Your task to perform on an android device: Add razer huntsman to the cart on costco, then select checkout. Image 0: 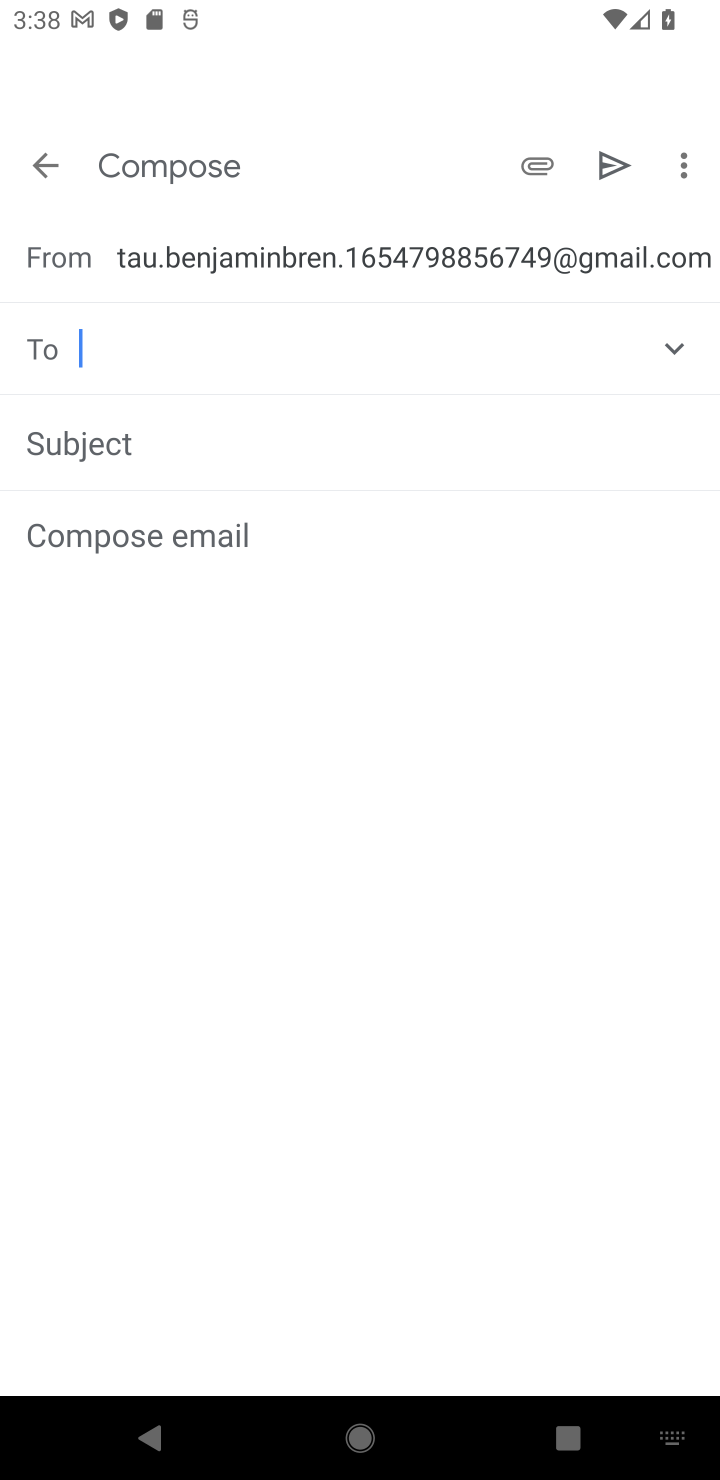
Step 0: press home button
Your task to perform on an android device: Add razer huntsman to the cart on costco, then select checkout. Image 1: 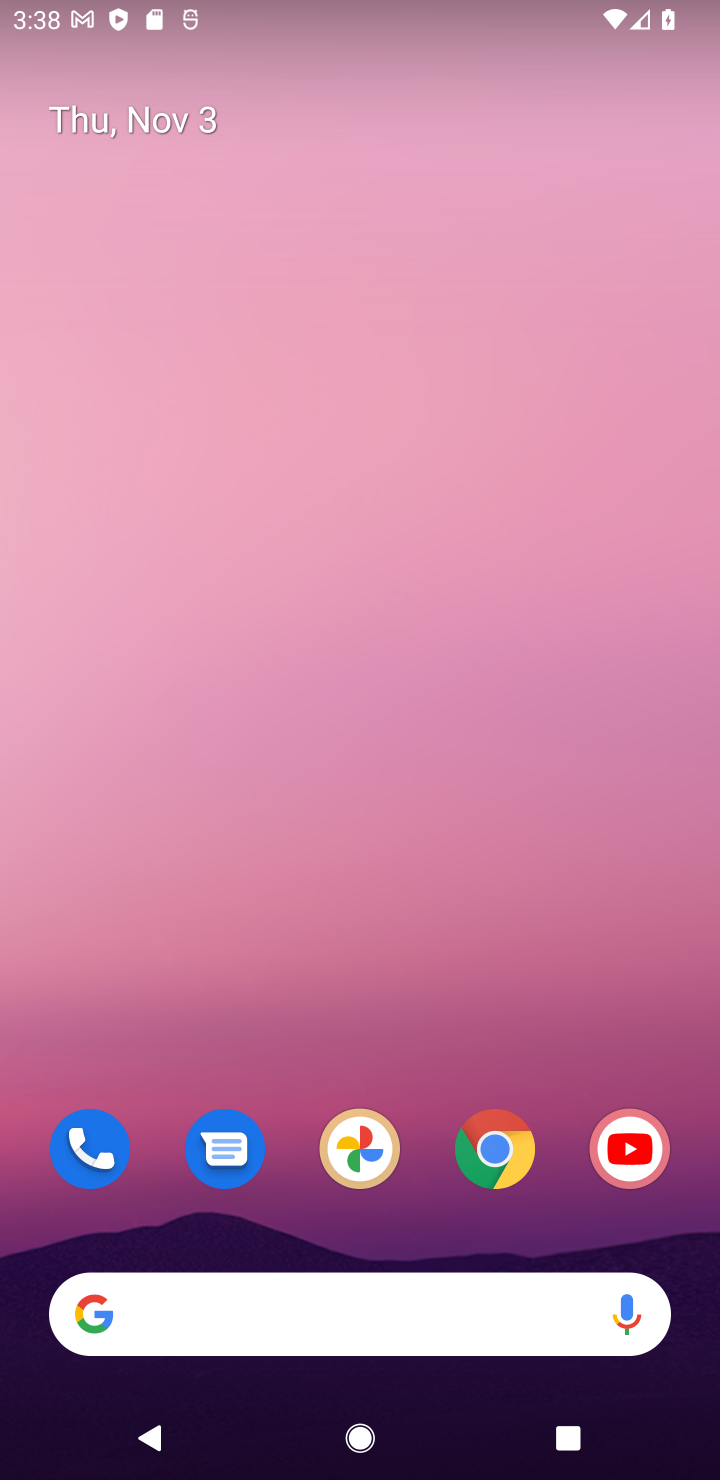
Step 1: click (498, 1137)
Your task to perform on an android device: Add razer huntsman to the cart on costco, then select checkout. Image 2: 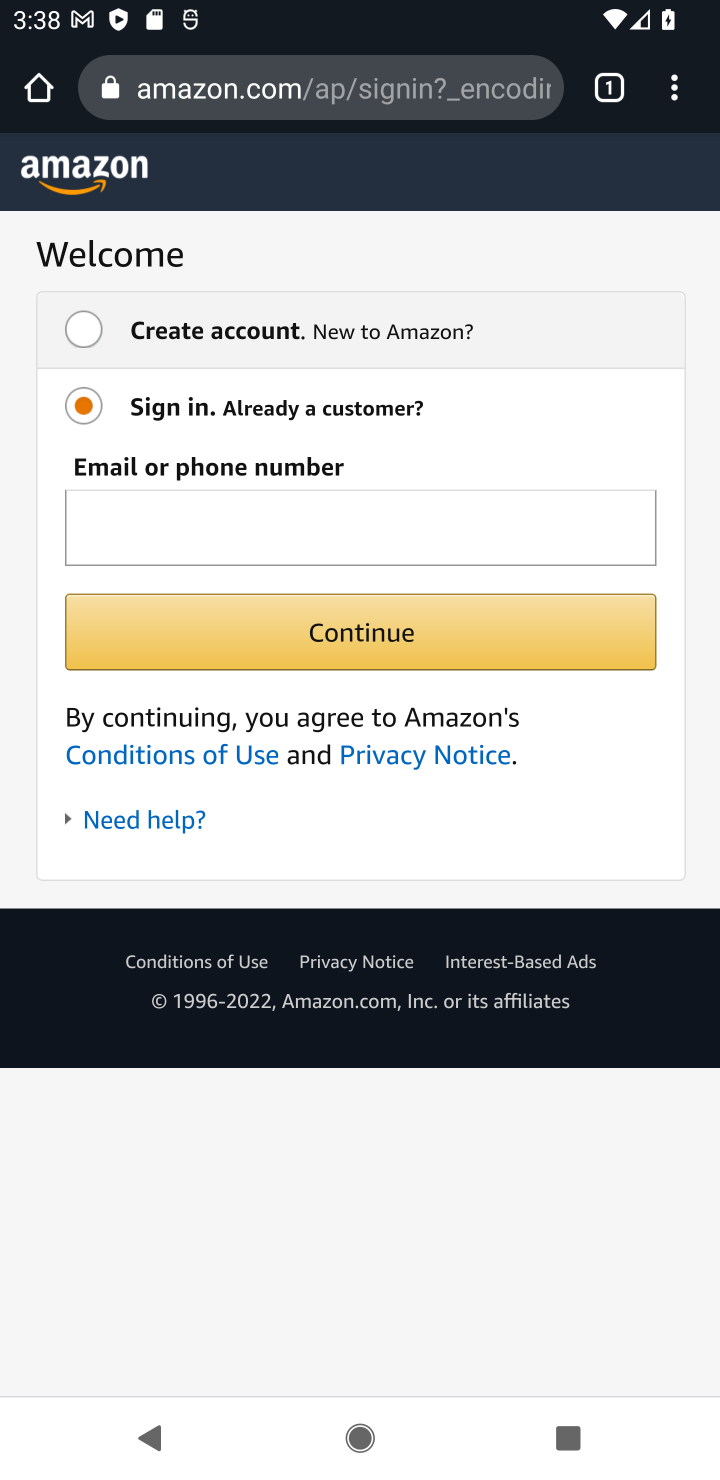
Step 2: click (248, 87)
Your task to perform on an android device: Add razer huntsman to the cart on costco, then select checkout. Image 3: 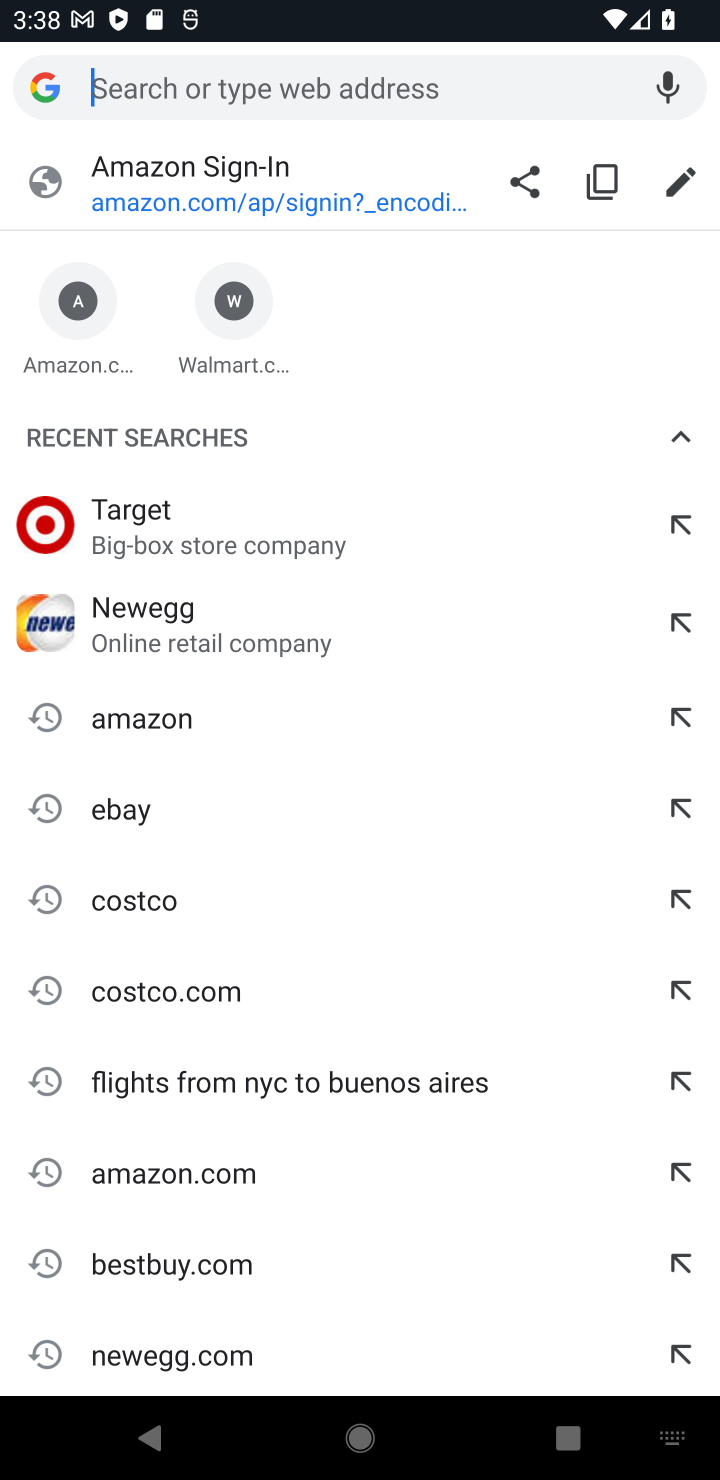
Step 3: type "costco"
Your task to perform on an android device: Add razer huntsman to the cart on costco, then select checkout. Image 4: 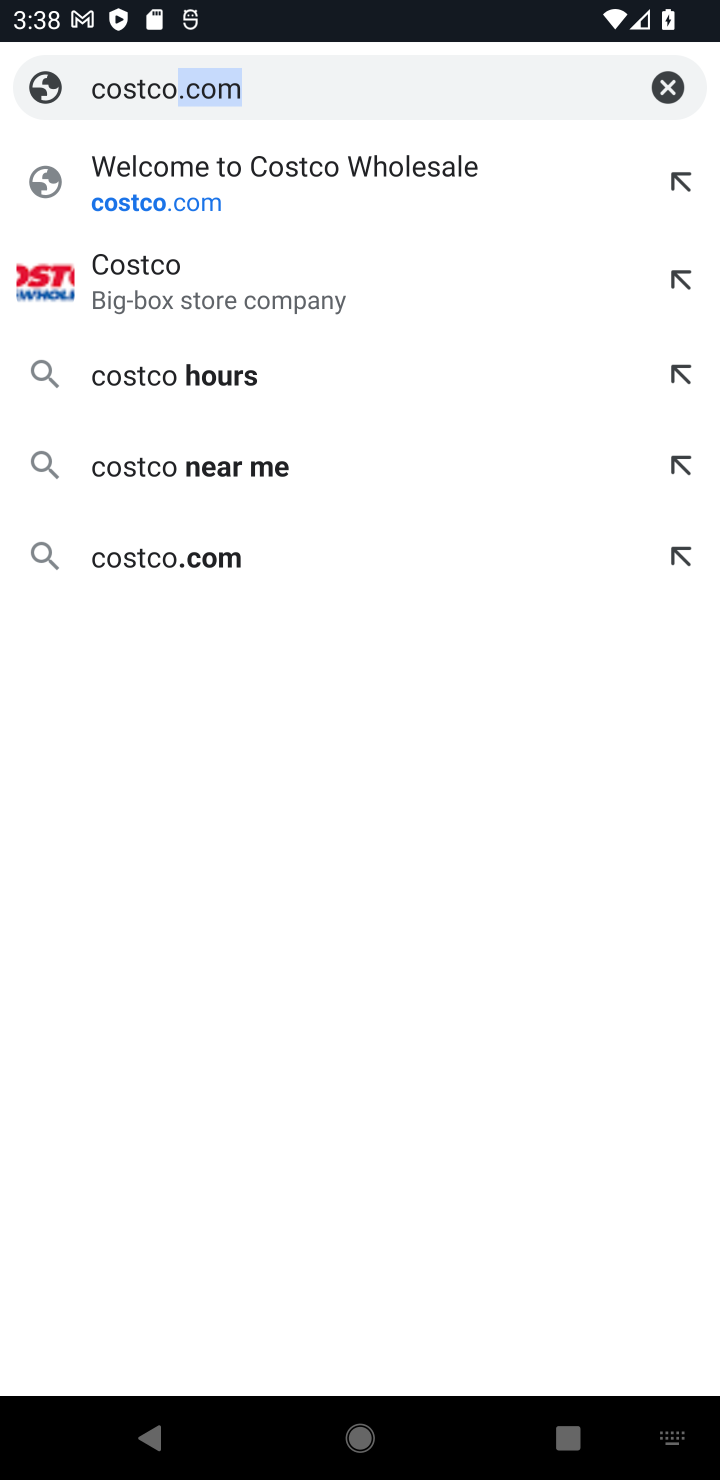
Step 4: click (306, 278)
Your task to perform on an android device: Add razer huntsman to the cart on costco, then select checkout. Image 5: 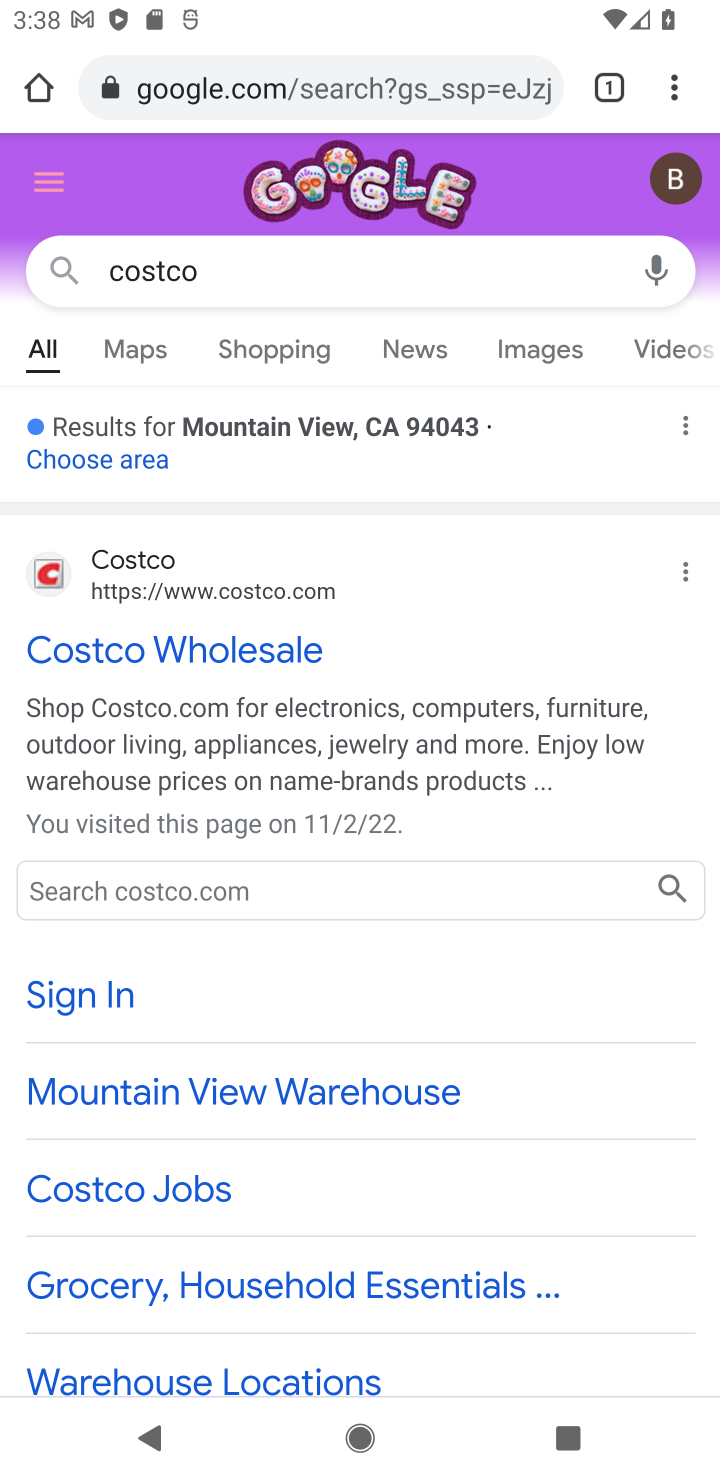
Step 5: click (267, 647)
Your task to perform on an android device: Add razer huntsman to the cart on costco, then select checkout. Image 6: 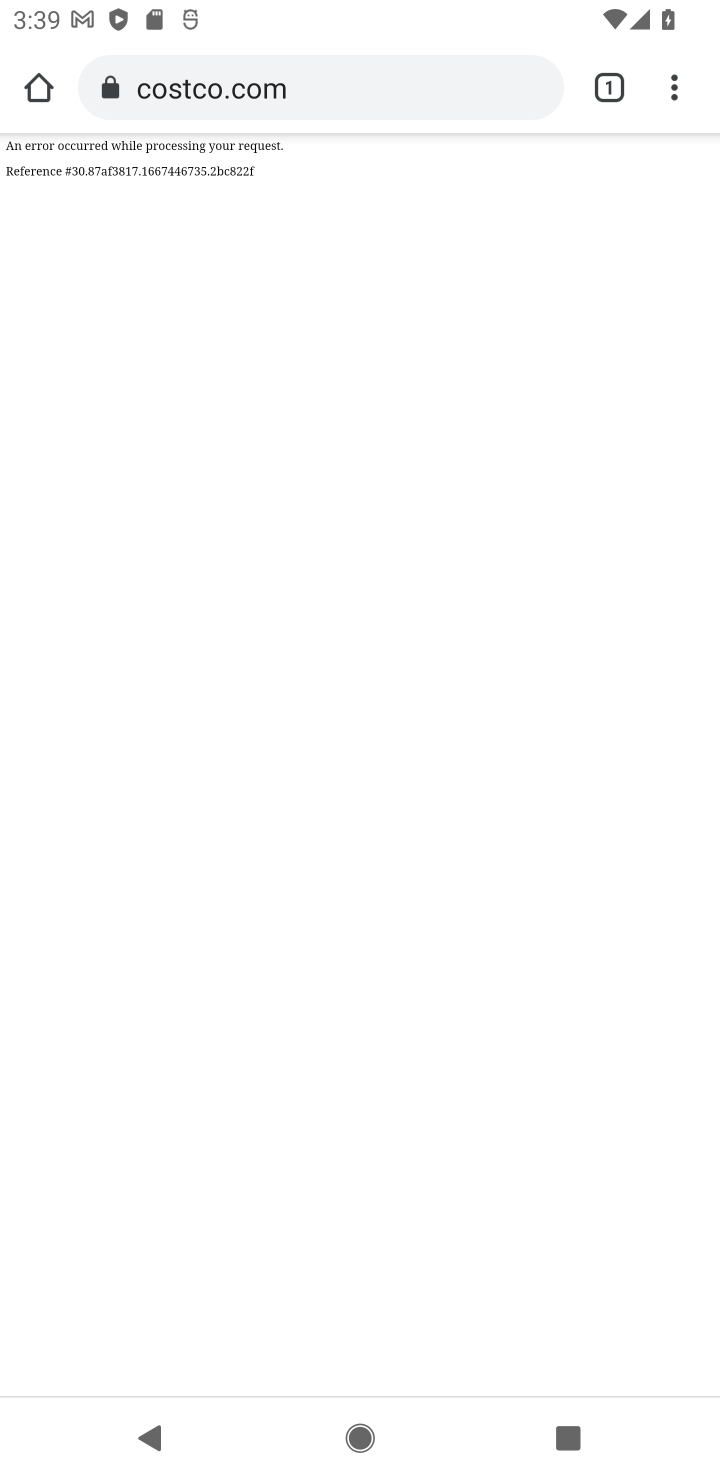
Step 6: press back button
Your task to perform on an android device: Add razer huntsman to the cart on costco, then select checkout. Image 7: 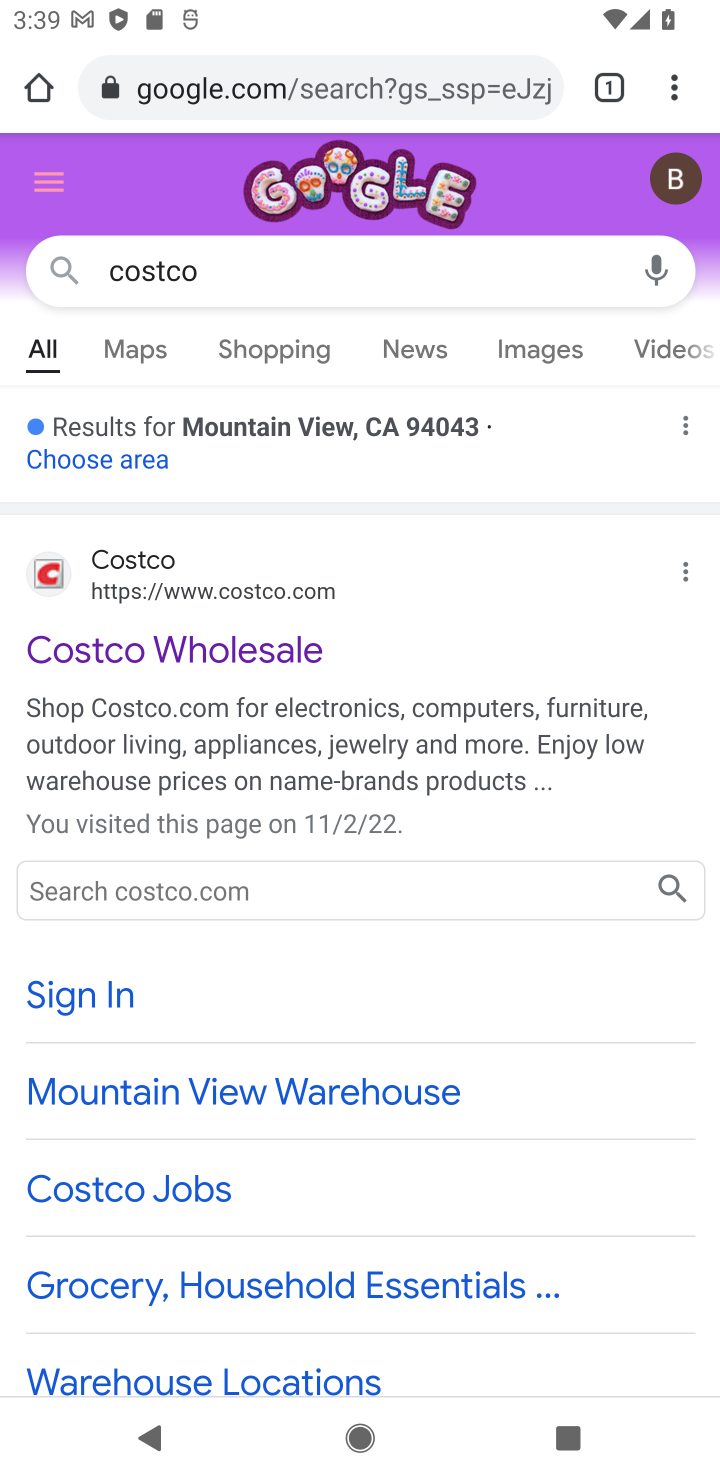
Step 7: drag from (245, 1236) to (261, 500)
Your task to perform on an android device: Add razer huntsman to the cart on costco, then select checkout. Image 8: 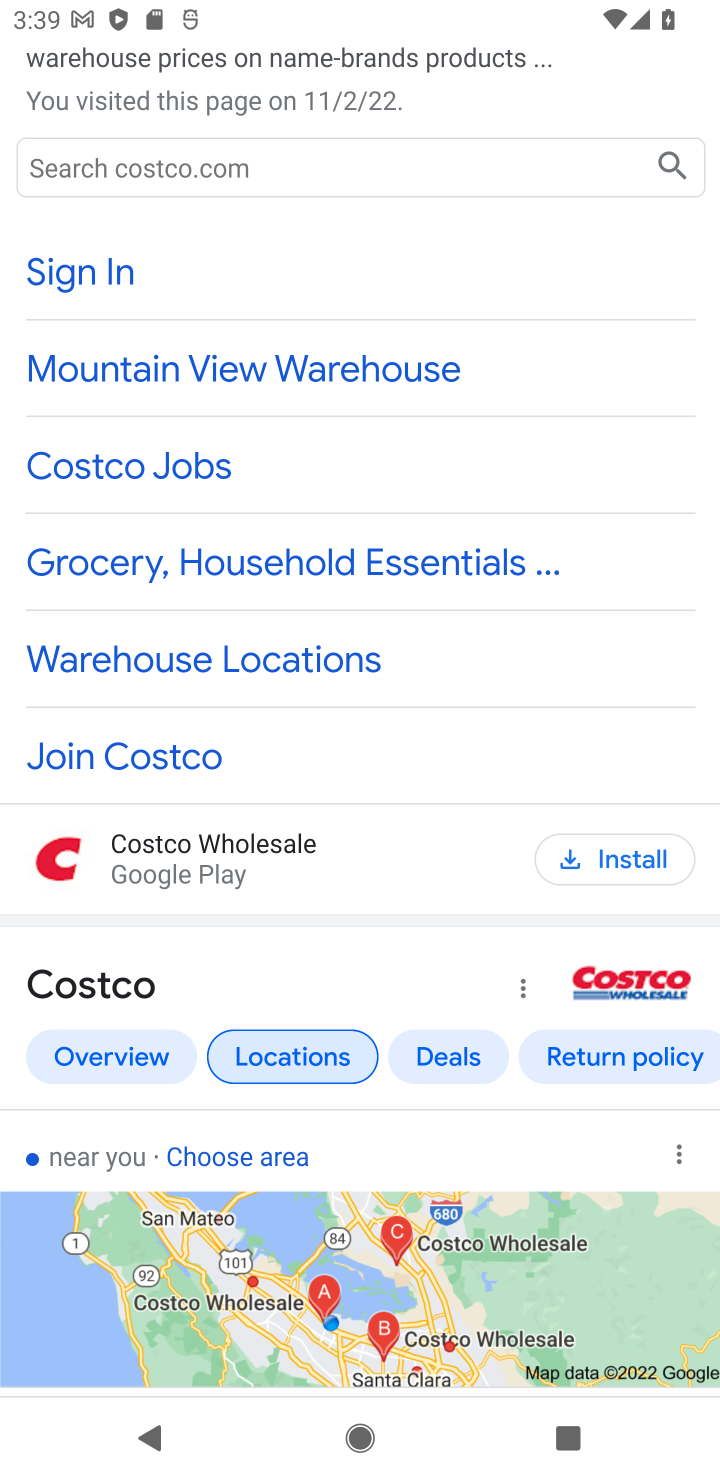
Step 8: drag from (357, 965) to (401, 416)
Your task to perform on an android device: Add razer huntsman to the cart on costco, then select checkout. Image 9: 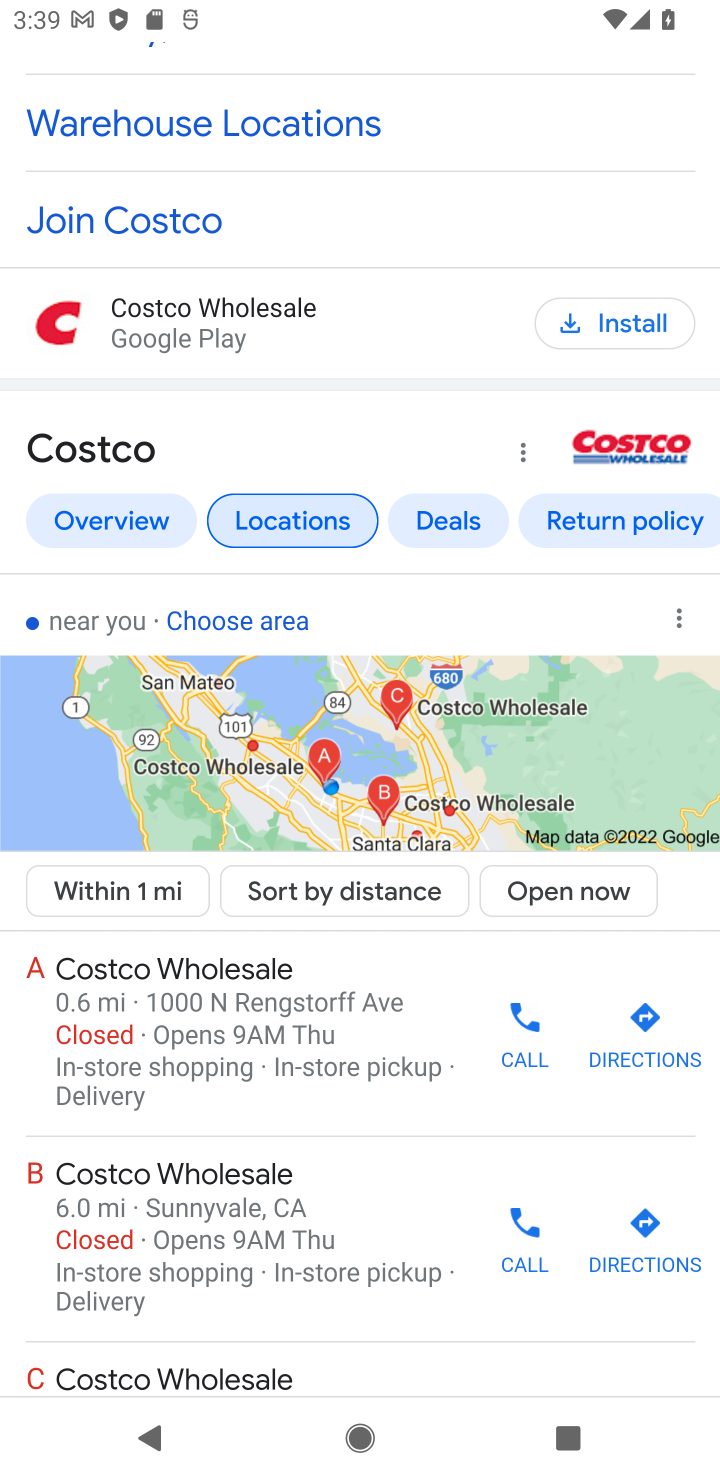
Step 9: drag from (364, 1351) to (462, 462)
Your task to perform on an android device: Add razer huntsman to the cart on costco, then select checkout. Image 10: 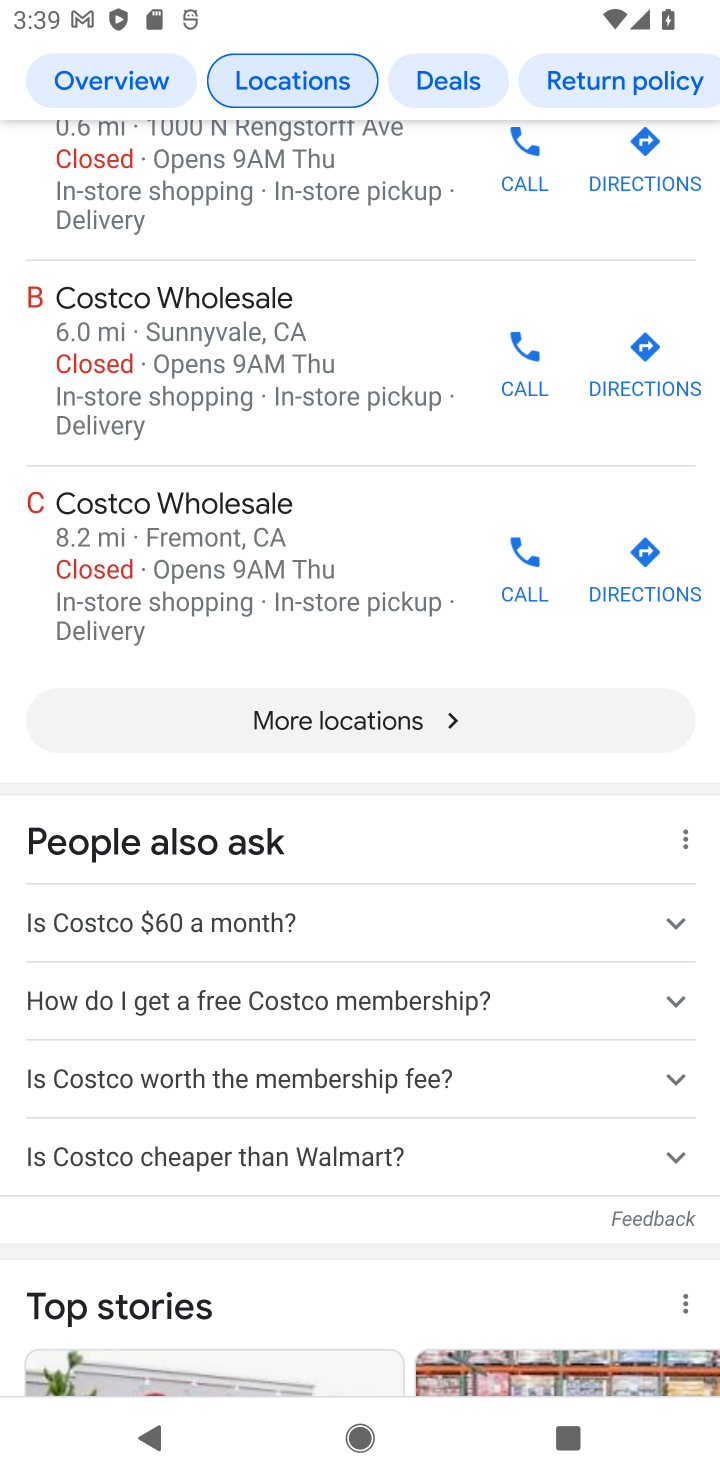
Step 10: drag from (342, 812) to (358, 180)
Your task to perform on an android device: Add razer huntsman to the cart on costco, then select checkout. Image 11: 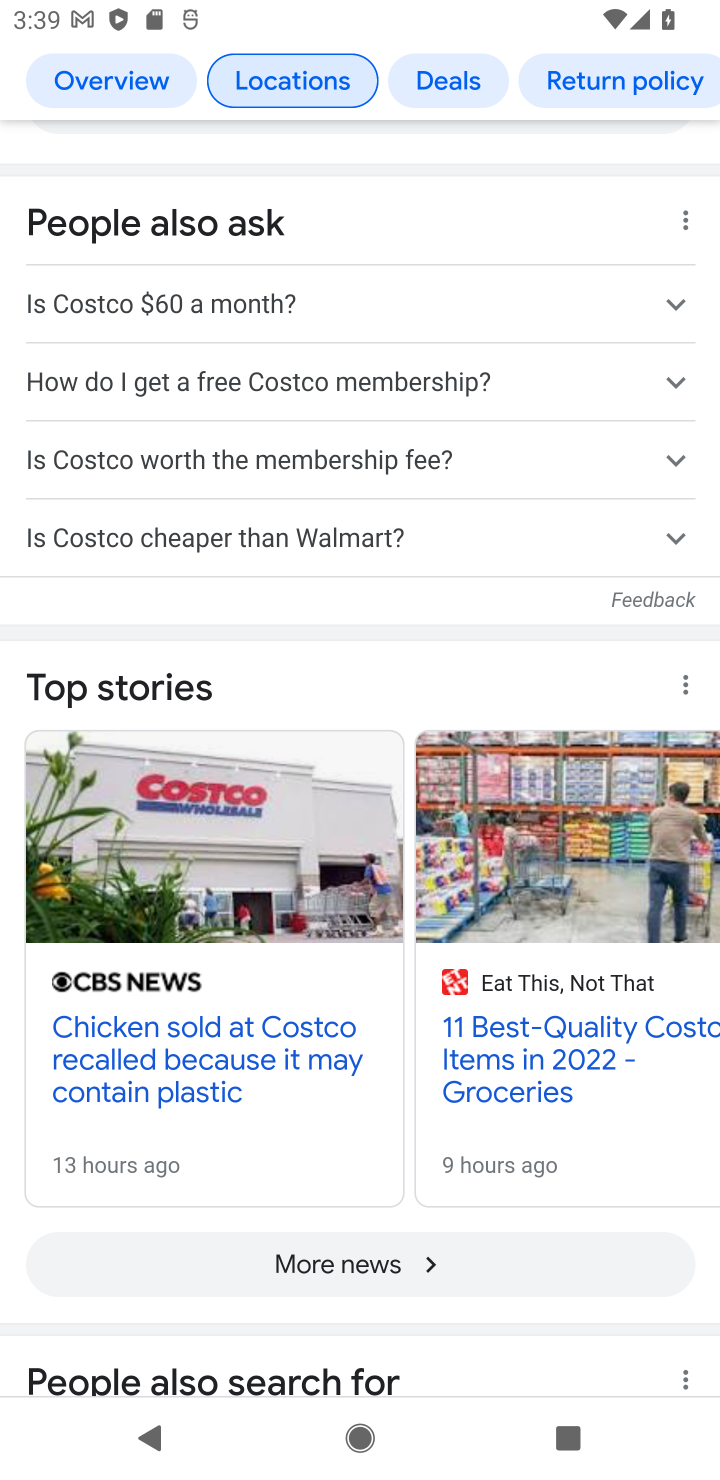
Step 11: drag from (364, 313) to (272, 1443)
Your task to perform on an android device: Add razer huntsman to the cart on costco, then select checkout. Image 12: 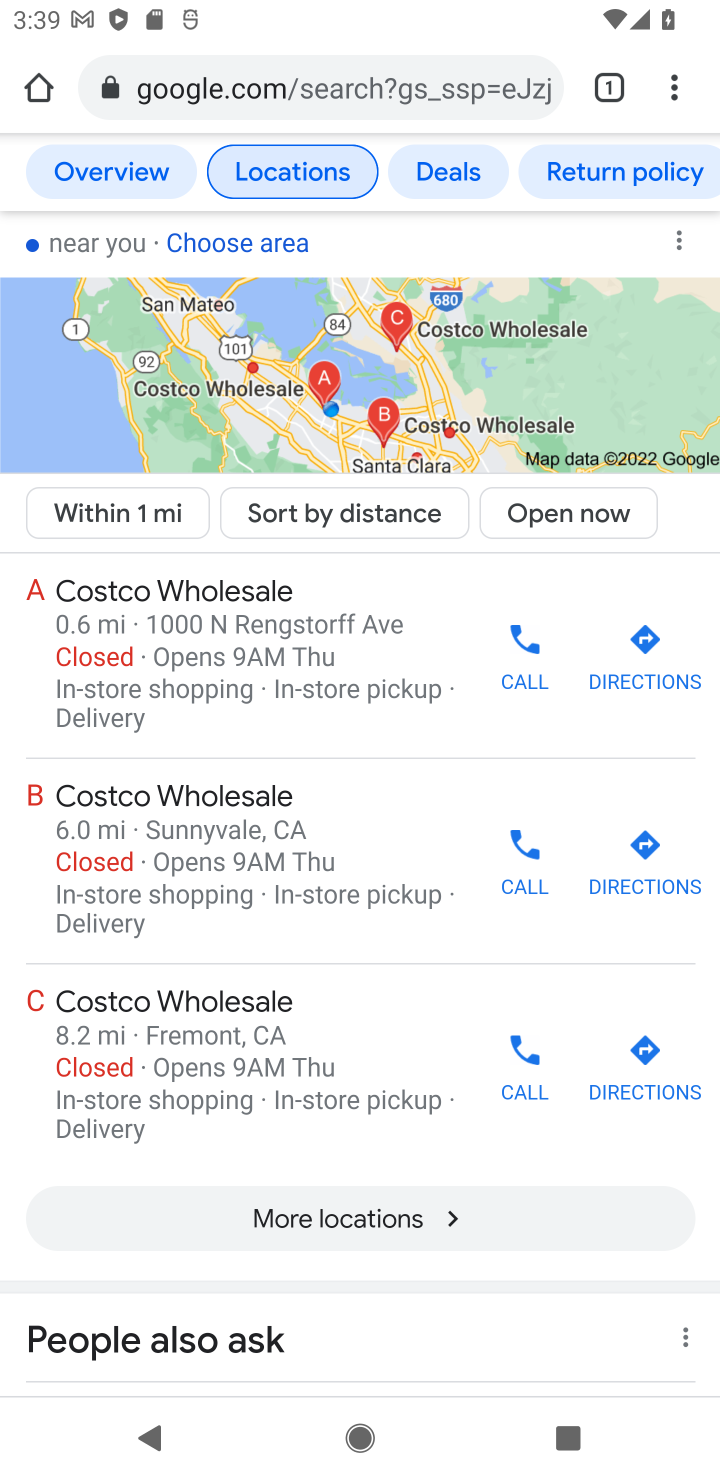
Step 12: drag from (344, 226) to (399, 1166)
Your task to perform on an android device: Add razer huntsman to the cart on costco, then select checkout. Image 13: 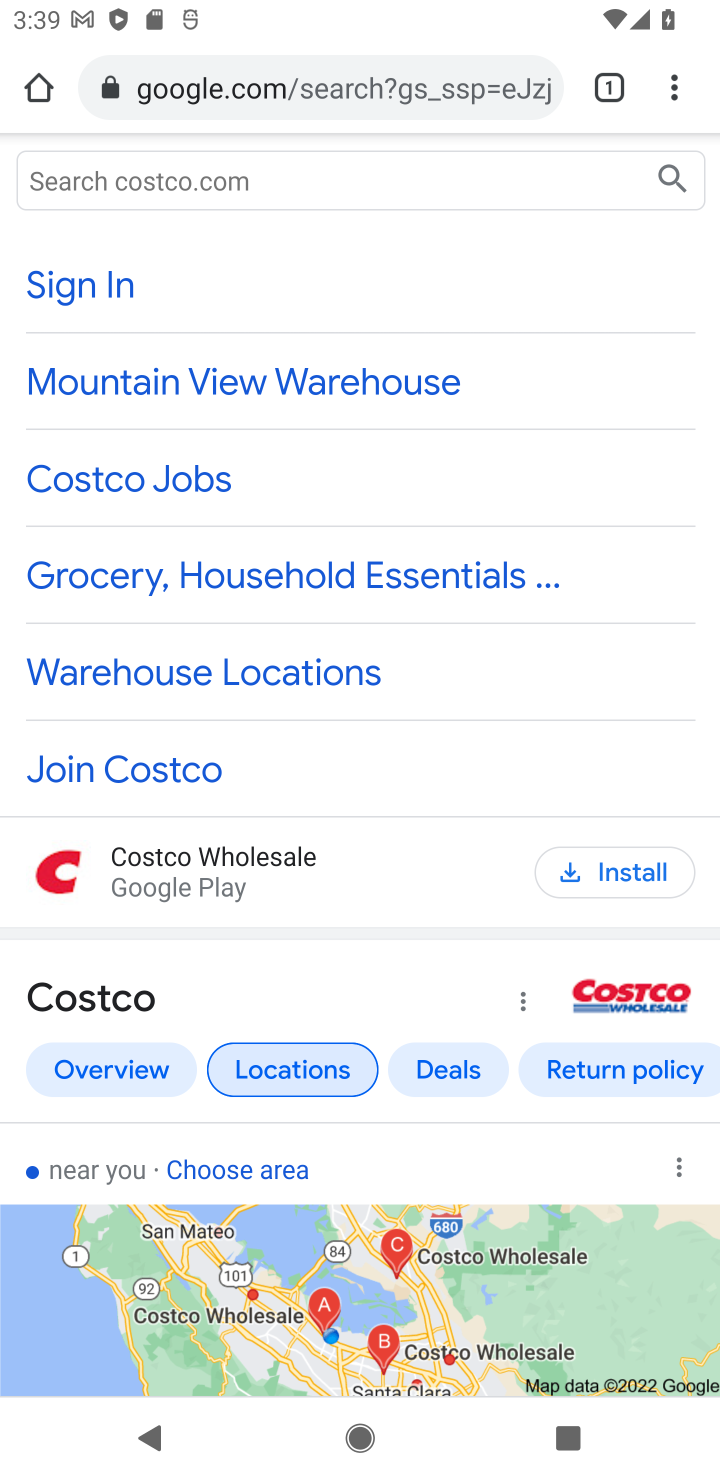
Step 13: drag from (369, 490) to (317, 1413)
Your task to perform on an android device: Add razer huntsman to the cart on costco, then select checkout. Image 14: 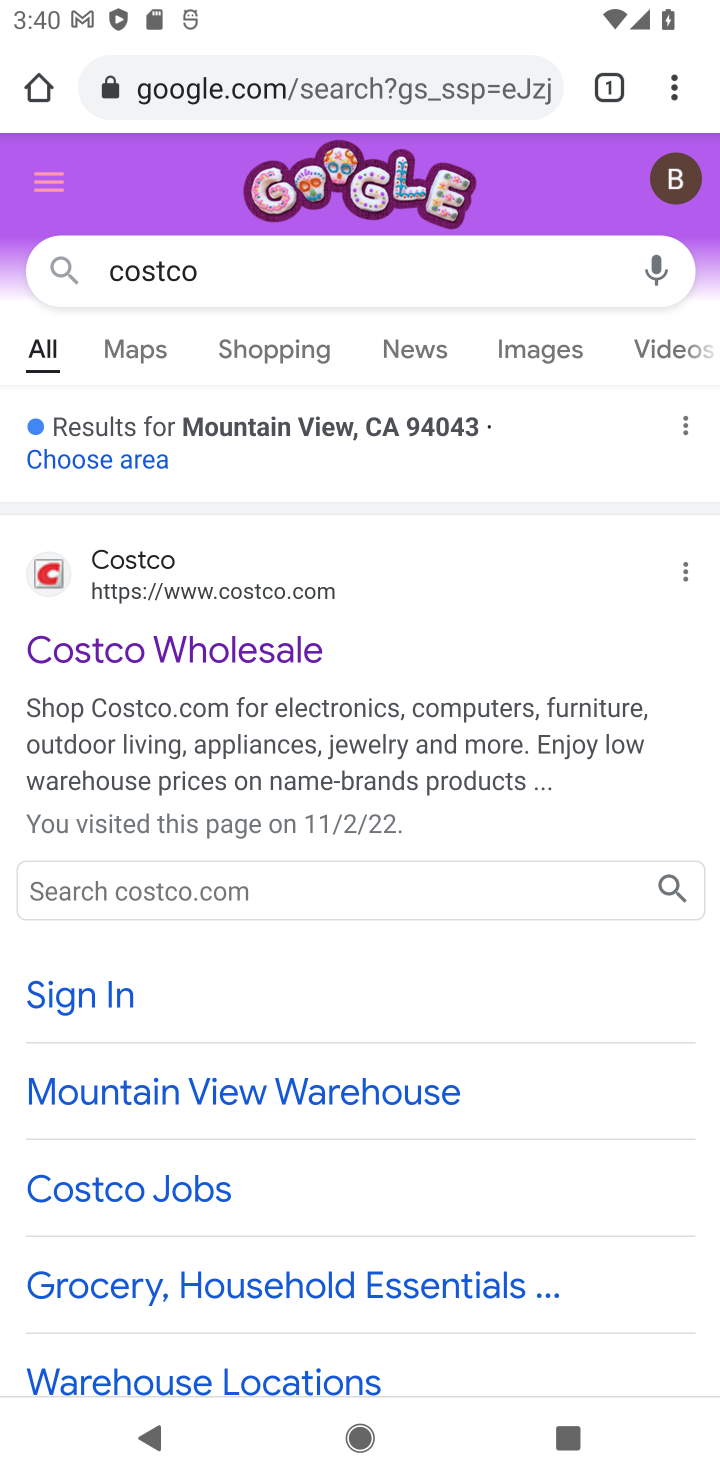
Step 14: click (183, 647)
Your task to perform on an android device: Add razer huntsman to the cart on costco, then select checkout. Image 15: 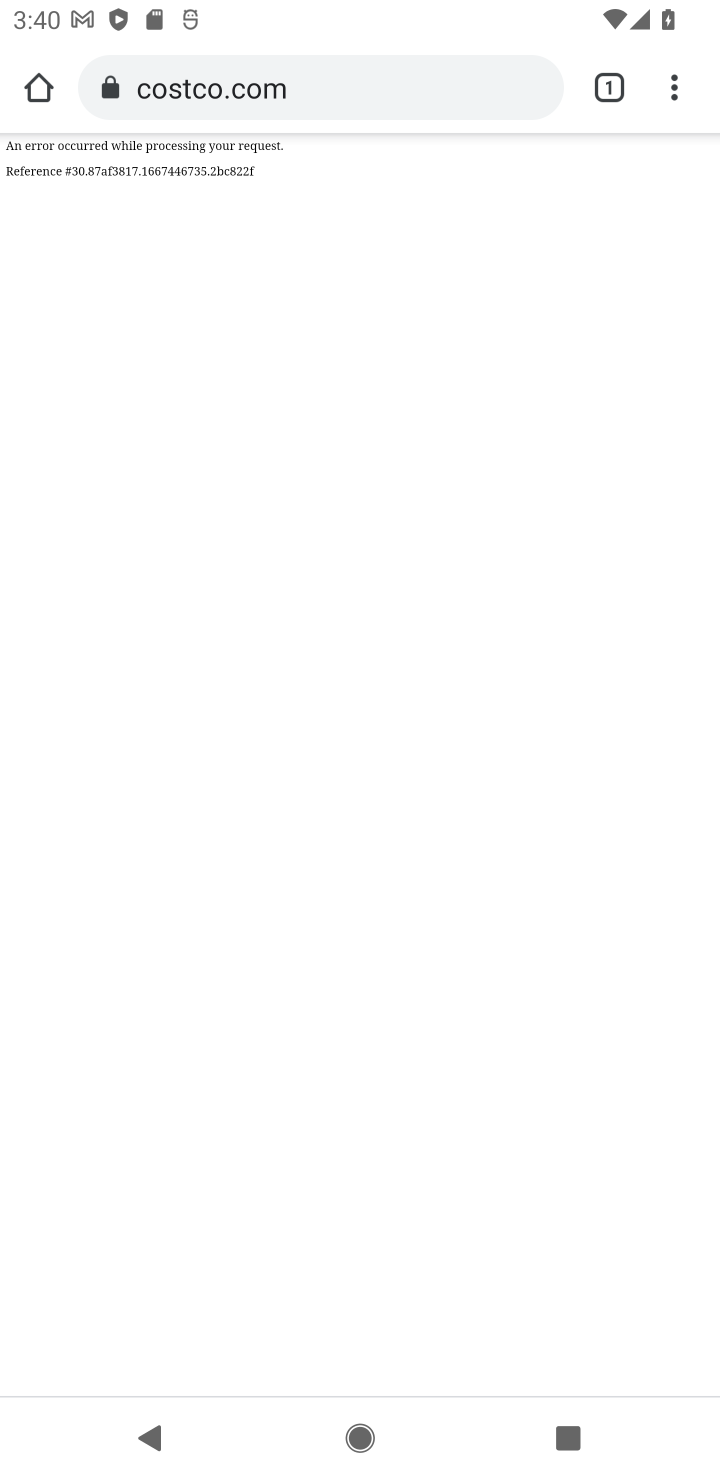
Step 15: task complete